Your task to perform on an android device: Go to network settings Image 0: 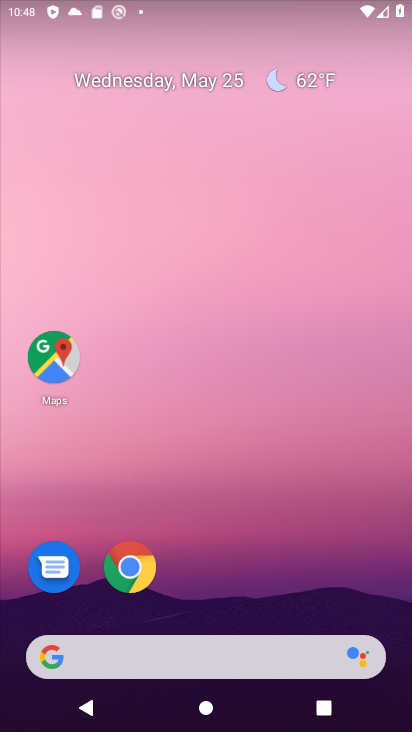
Step 0: drag from (337, 588) to (294, 27)
Your task to perform on an android device: Go to network settings Image 1: 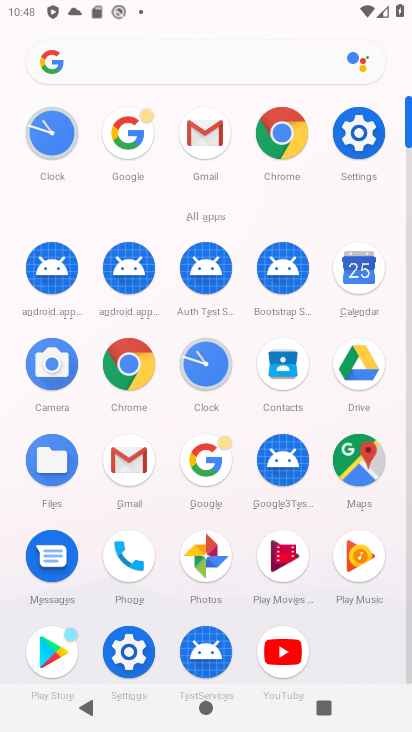
Step 1: click (349, 137)
Your task to perform on an android device: Go to network settings Image 2: 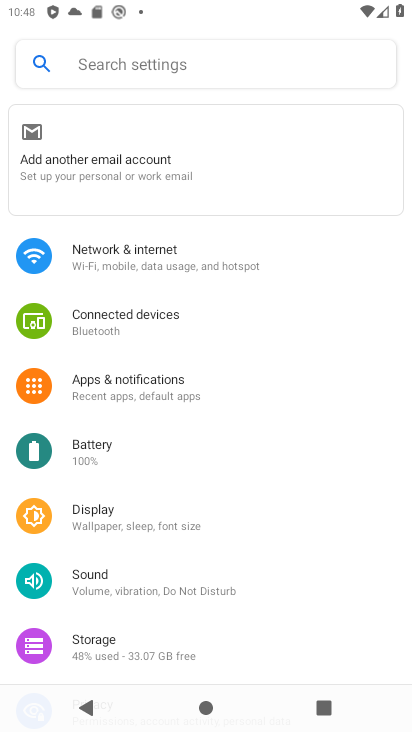
Step 2: click (198, 256)
Your task to perform on an android device: Go to network settings Image 3: 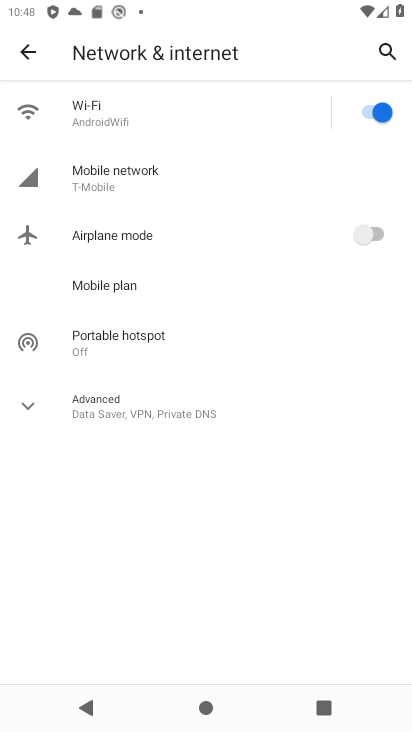
Step 3: task complete